Your task to perform on an android device: turn off notifications in google photos Image 0: 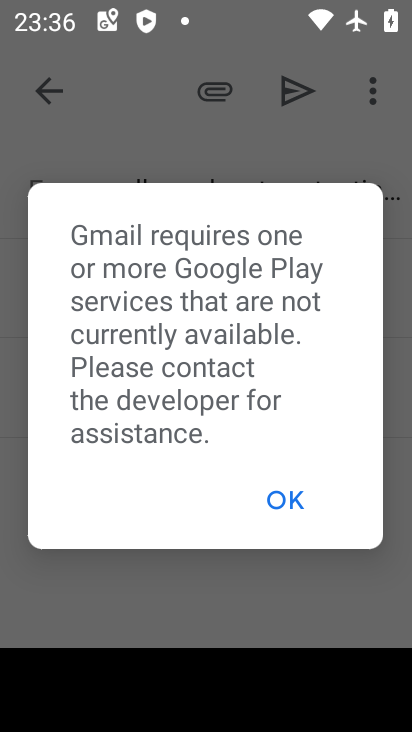
Step 0: press home button
Your task to perform on an android device: turn off notifications in google photos Image 1: 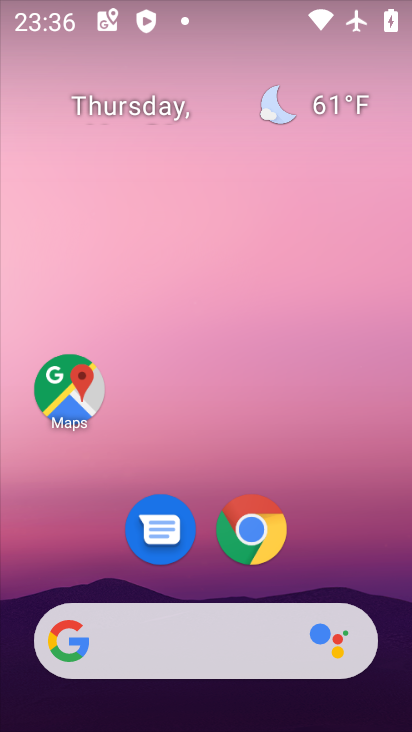
Step 1: drag from (362, 539) to (264, 46)
Your task to perform on an android device: turn off notifications in google photos Image 2: 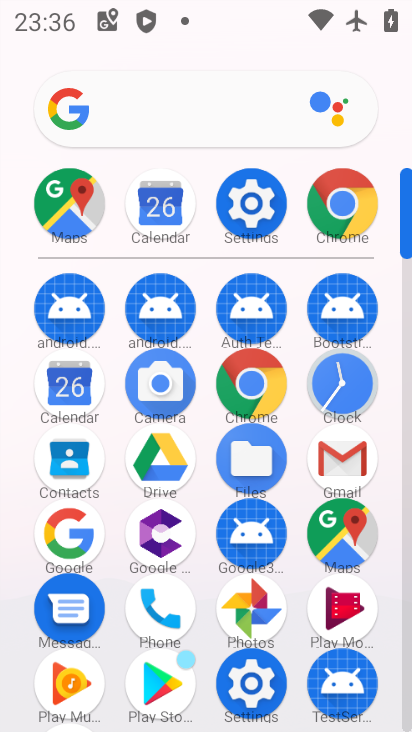
Step 2: click (239, 607)
Your task to perform on an android device: turn off notifications in google photos Image 3: 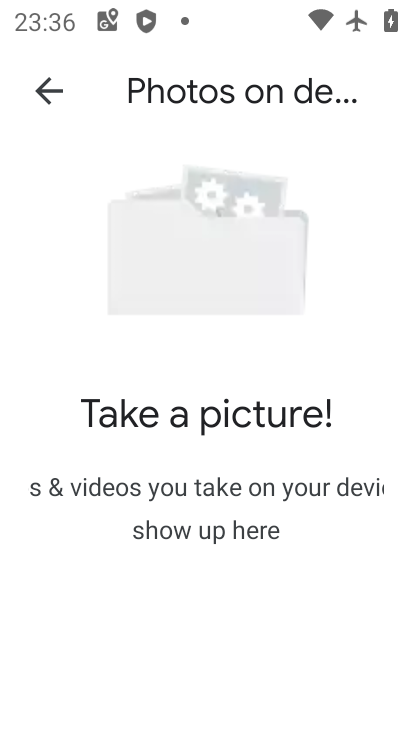
Step 3: task complete